Your task to perform on an android device: toggle wifi Image 0: 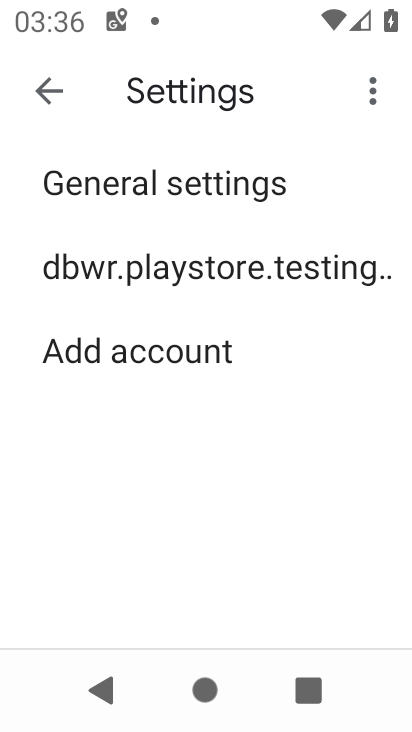
Step 0: press home button
Your task to perform on an android device: toggle wifi Image 1: 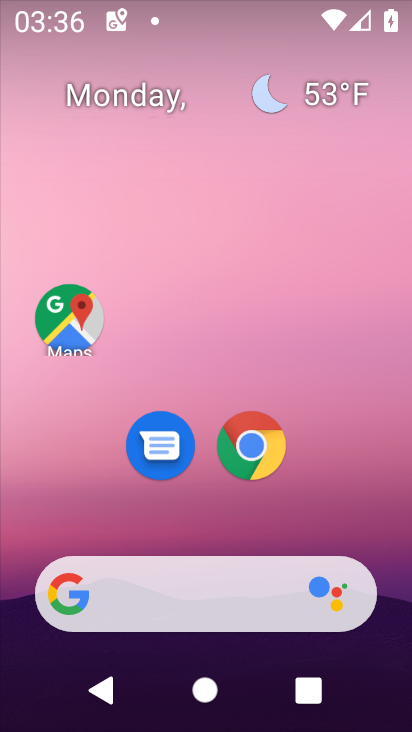
Step 1: drag from (205, 529) to (189, 15)
Your task to perform on an android device: toggle wifi Image 2: 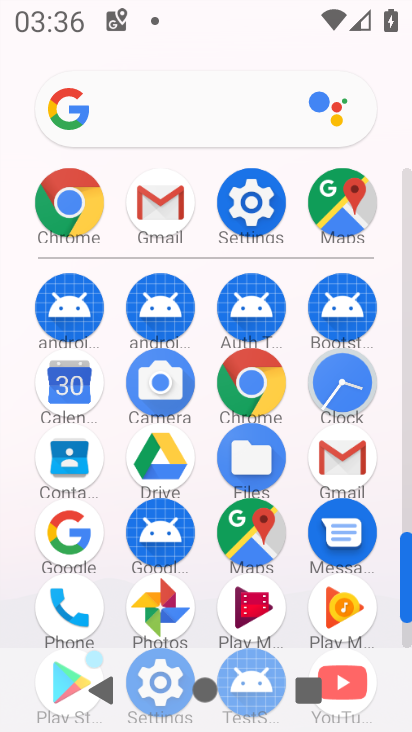
Step 2: click (262, 216)
Your task to perform on an android device: toggle wifi Image 3: 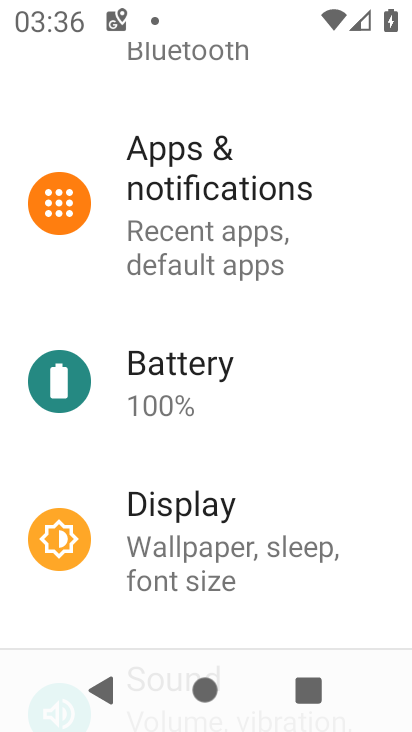
Step 3: drag from (195, 212) to (137, 728)
Your task to perform on an android device: toggle wifi Image 4: 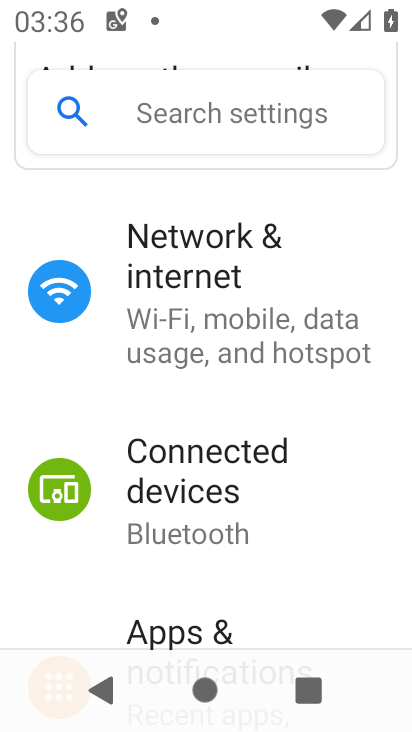
Step 4: click (221, 328)
Your task to perform on an android device: toggle wifi Image 5: 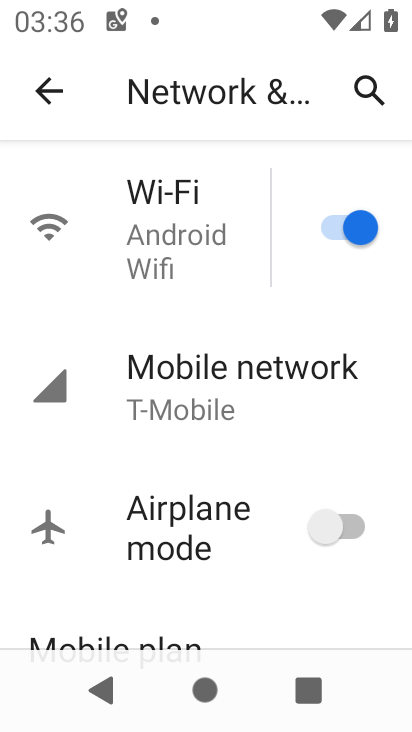
Step 5: drag from (220, 498) to (242, 227)
Your task to perform on an android device: toggle wifi Image 6: 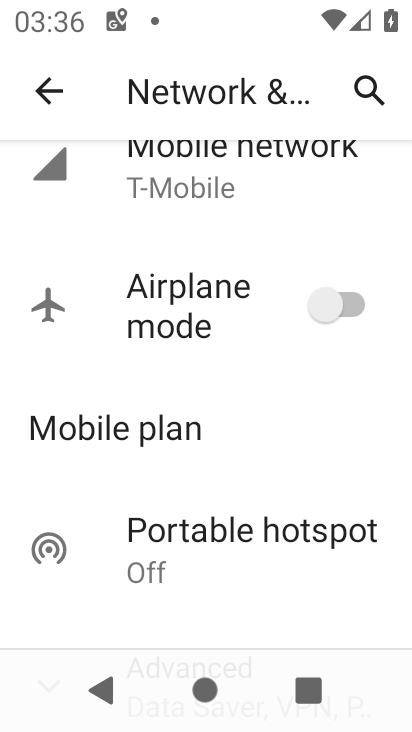
Step 6: drag from (229, 195) to (237, 621)
Your task to perform on an android device: toggle wifi Image 7: 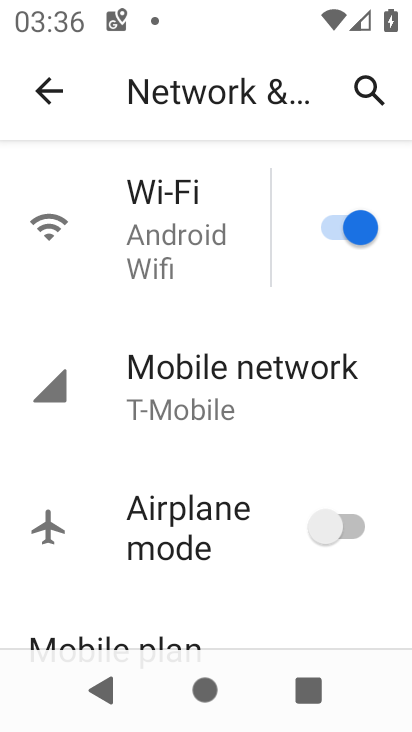
Step 7: click (329, 214)
Your task to perform on an android device: toggle wifi Image 8: 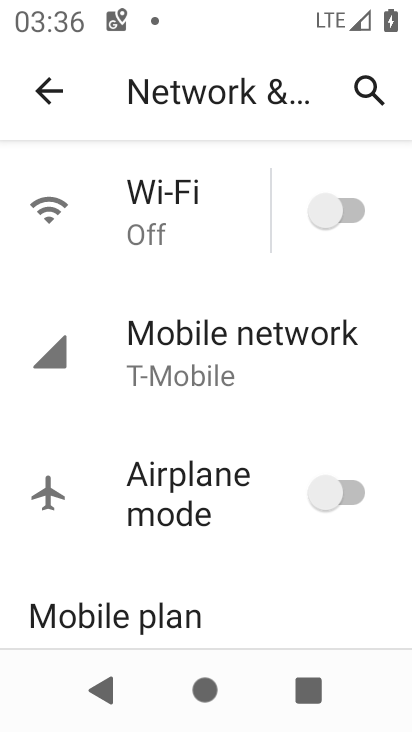
Step 8: task complete